Your task to perform on an android device: Go to Reddit.com Image 0: 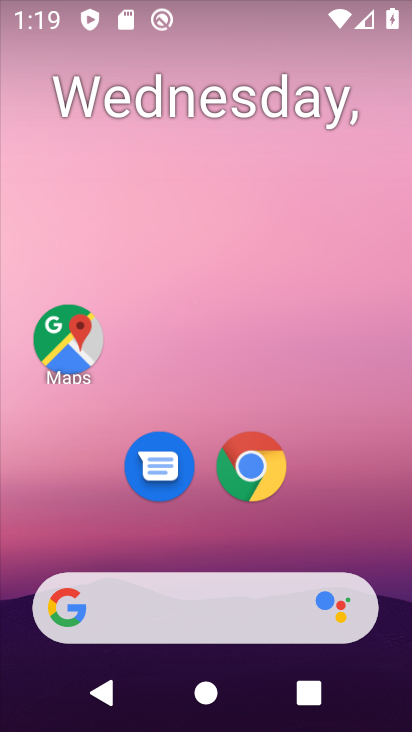
Step 0: click (249, 462)
Your task to perform on an android device: Go to Reddit.com Image 1: 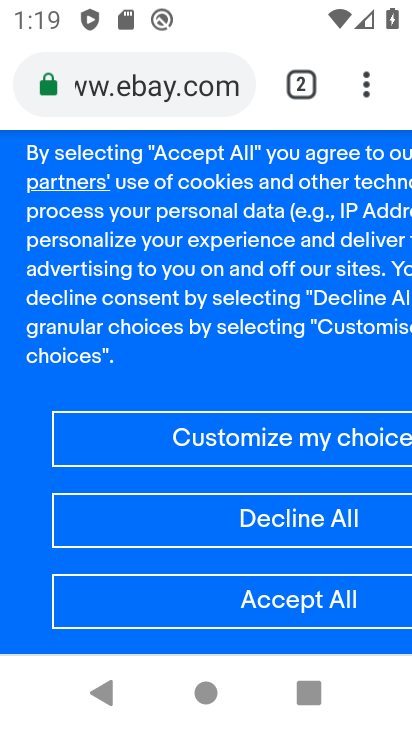
Step 1: click (189, 98)
Your task to perform on an android device: Go to Reddit.com Image 2: 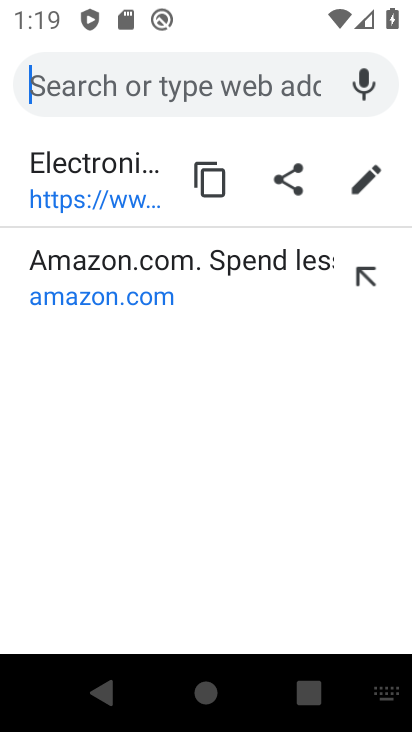
Step 2: type "reddit.com"
Your task to perform on an android device: Go to Reddit.com Image 3: 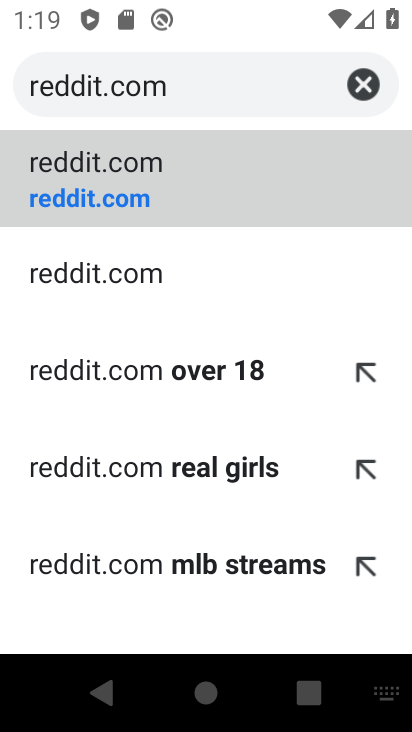
Step 3: click (223, 277)
Your task to perform on an android device: Go to Reddit.com Image 4: 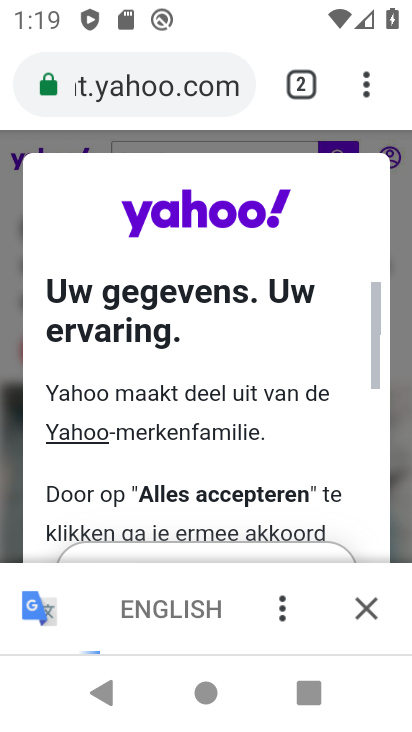
Step 4: click (126, 77)
Your task to perform on an android device: Go to Reddit.com Image 5: 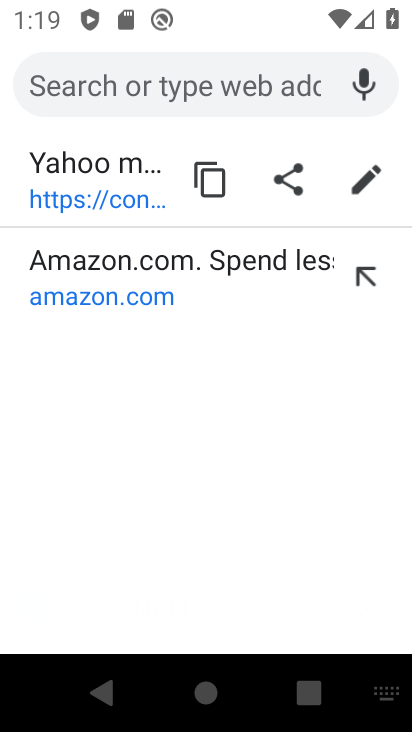
Step 5: type "reddit.com"
Your task to perform on an android device: Go to Reddit.com Image 6: 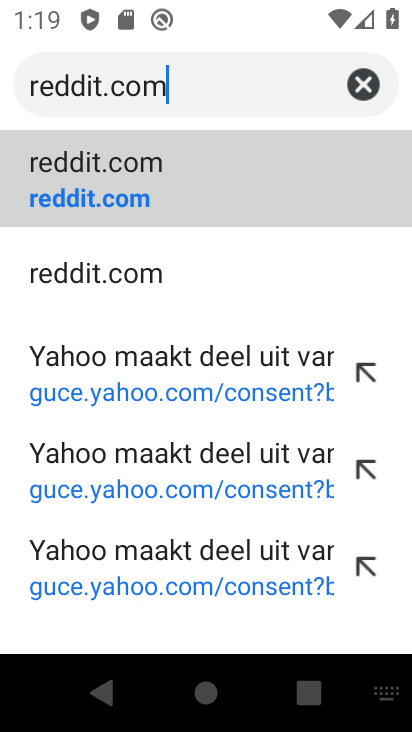
Step 6: click (321, 180)
Your task to perform on an android device: Go to Reddit.com Image 7: 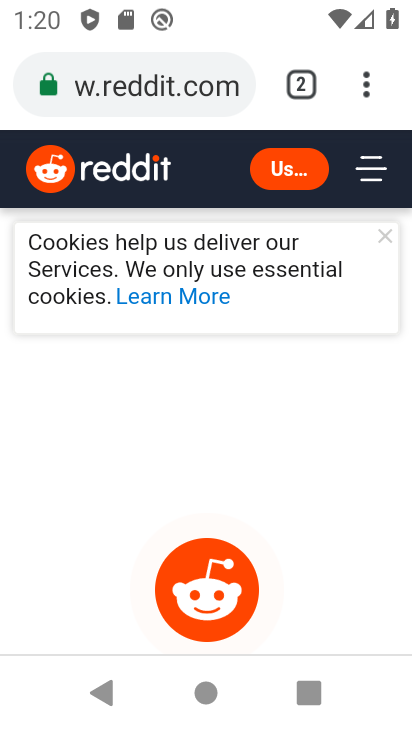
Step 7: task complete